Your task to perform on an android device: check google app version Image 0: 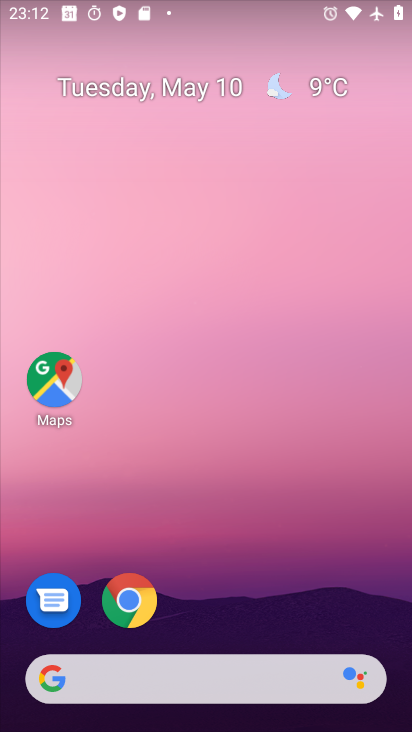
Step 0: drag from (305, 555) to (385, 125)
Your task to perform on an android device: check google app version Image 1: 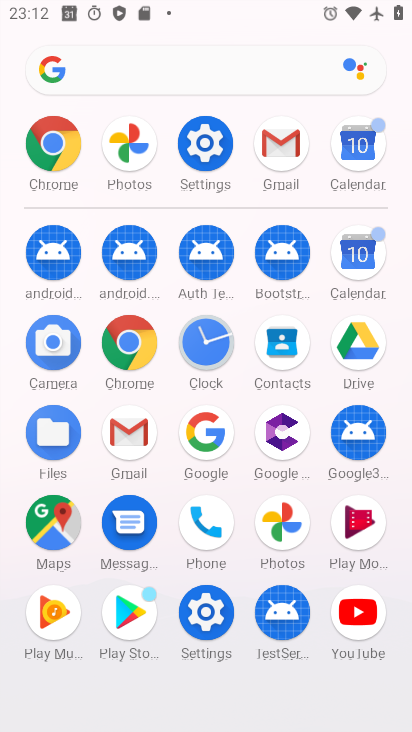
Step 1: click (213, 413)
Your task to perform on an android device: check google app version Image 2: 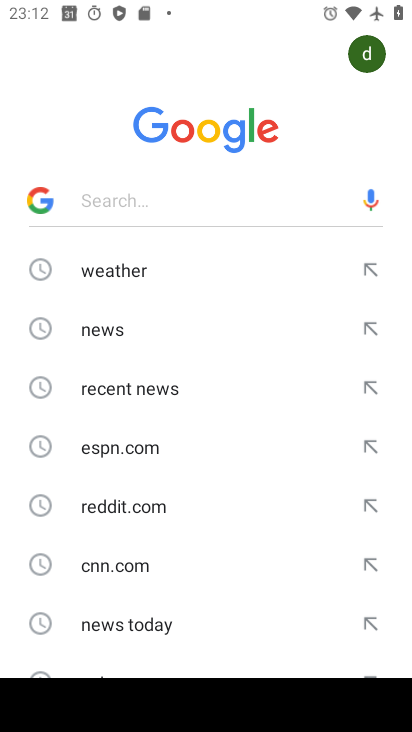
Step 2: click (375, 58)
Your task to perform on an android device: check google app version Image 3: 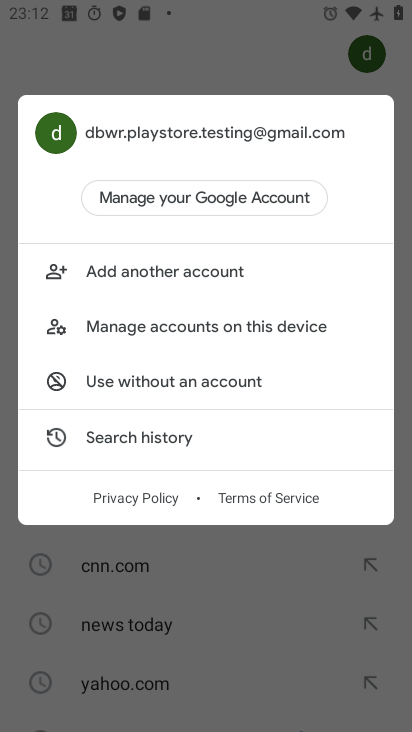
Step 3: click (375, 58)
Your task to perform on an android device: check google app version Image 4: 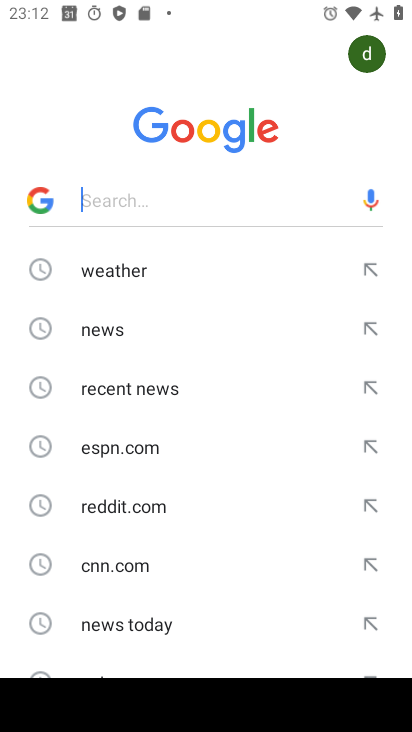
Step 4: click (386, 49)
Your task to perform on an android device: check google app version Image 5: 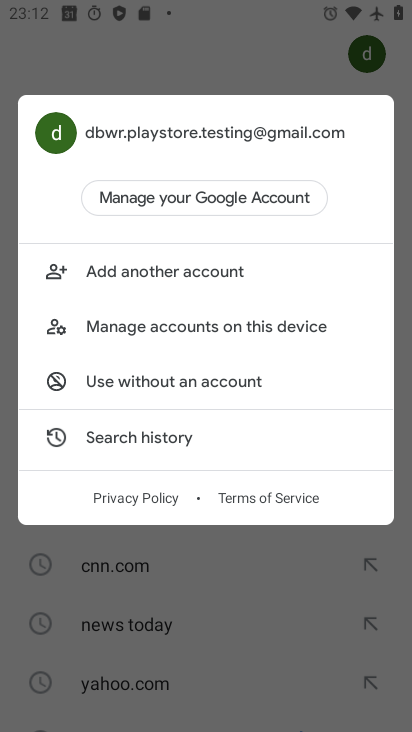
Step 5: click (377, 65)
Your task to perform on an android device: check google app version Image 6: 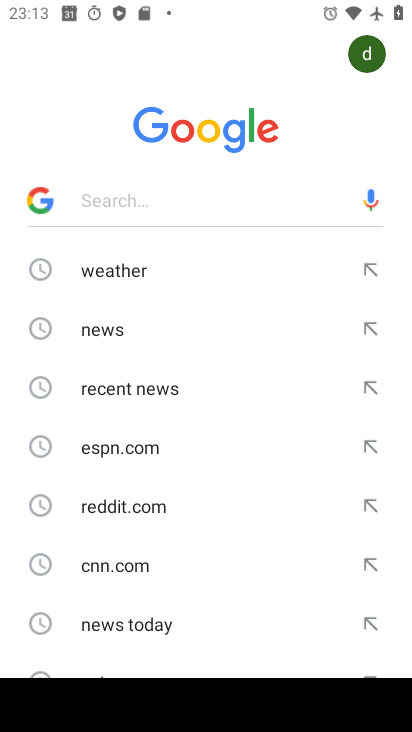
Step 6: click (361, 57)
Your task to perform on an android device: check google app version Image 7: 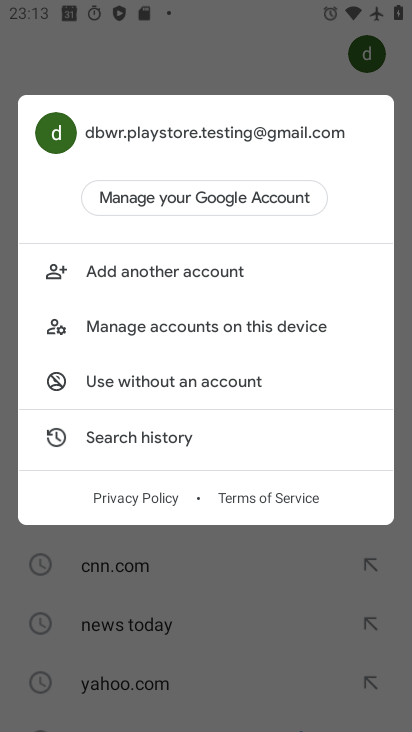
Step 7: press home button
Your task to perform on an android device: check google app version Image 8: 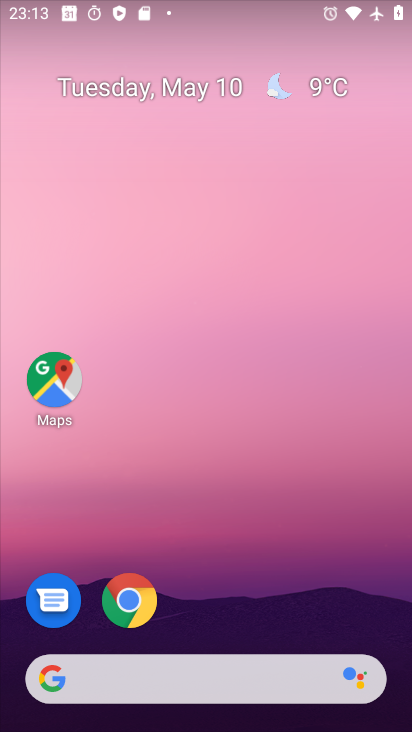
Step 8: click (134, 608)
Your task to perform on an android device: check google app version Image 9: 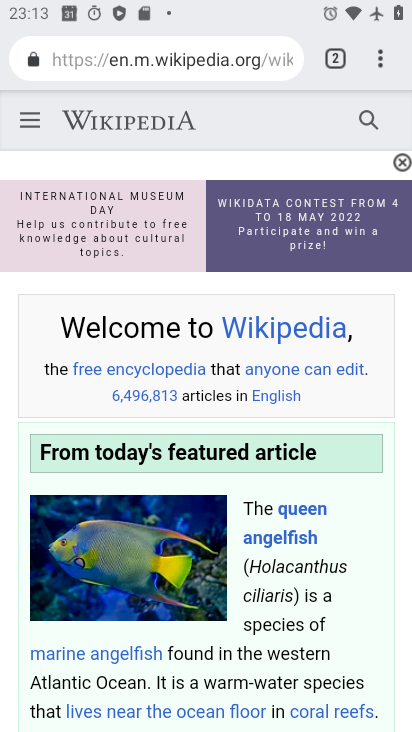
Step 9: press home button
Your task to perform on an android device: check google app version Image 10: 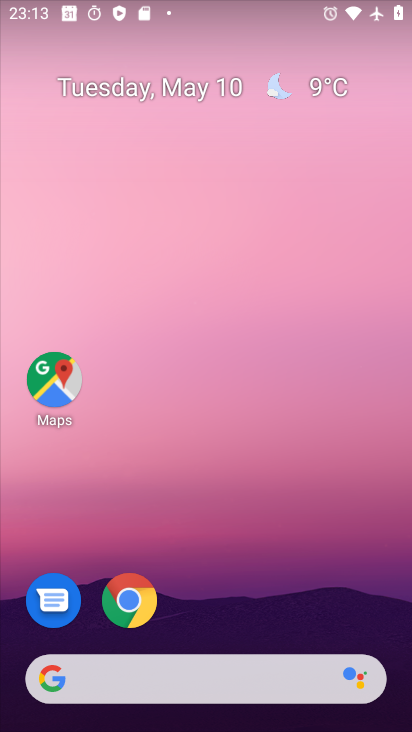
Step 10: drag from (206, 602) to (237, 138)
Your task to perform on an android device: check google app version Image 11: 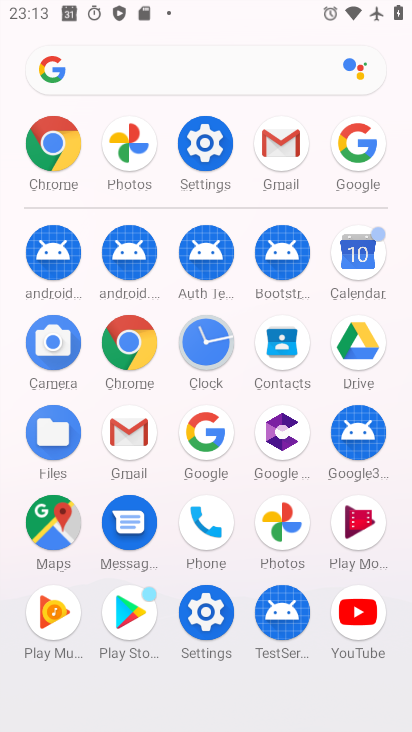
Step 11: click (373, 152)
Your task to perform on an android device: check google app version Image 12: 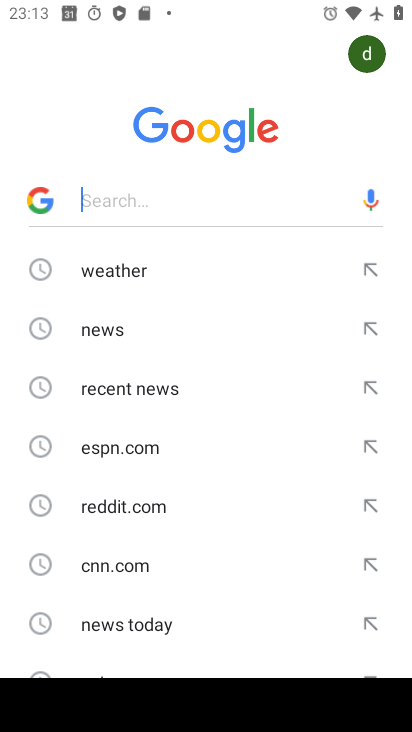
Step 12: click (34, 213)
Your task to perform on an android device: check google app version Image 13: 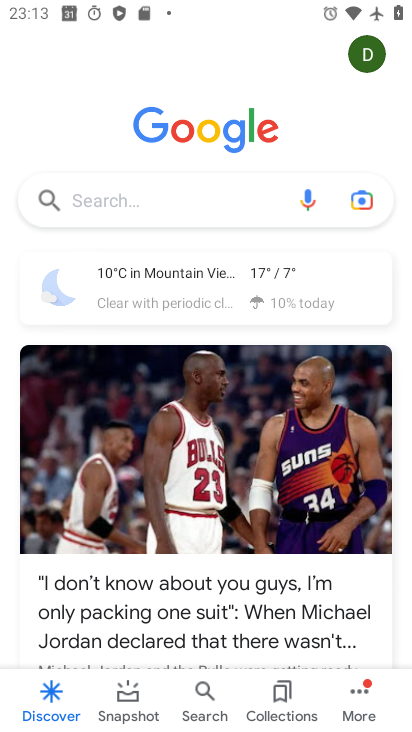
Step 13: click (366, 693)
Your task to perform on an android device: check google app version Image 14: 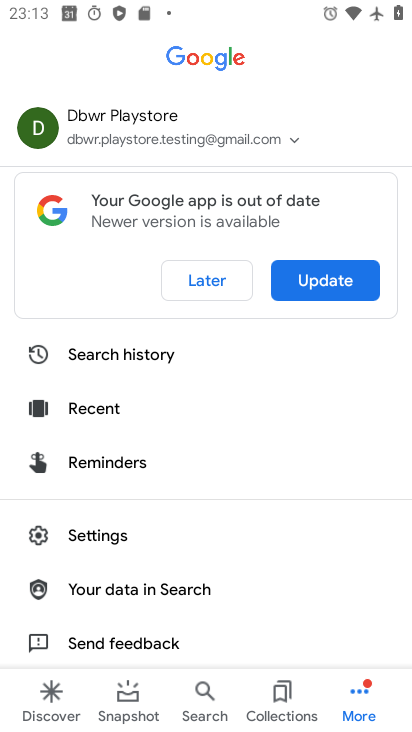
Step 14: click (70, 540)
Your task to perform on an android device: check google app version Image 15: 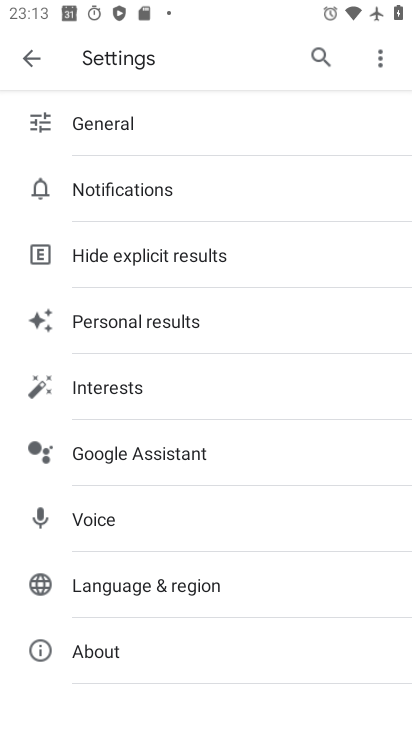
Step 15: drag from (187, 592) to (195, 259)
Your task to perform on an android device: check google app version Image 16: 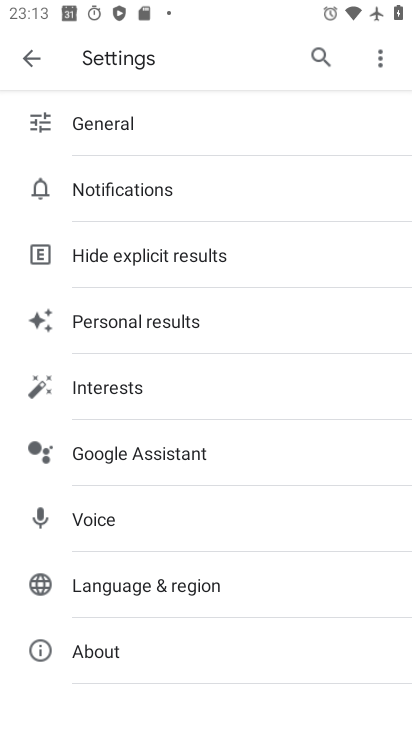
Step 16: click (127, 650)
Your task to perform on an android device: check google app version Image 17: 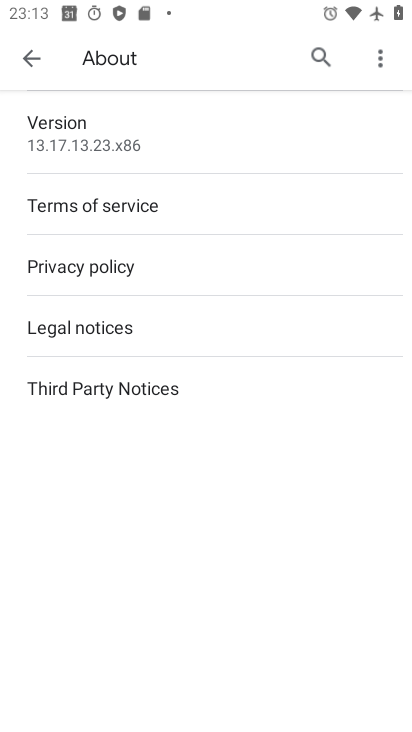
Step 17: click (81, 122)
Your task to perform on an android device: check google app version Image 18: 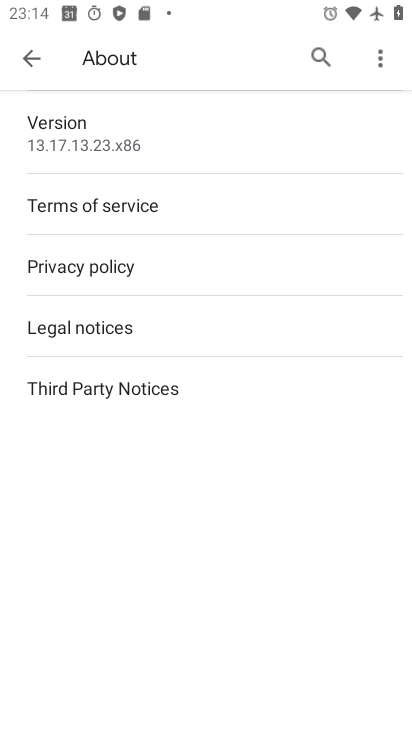
Step 18: click (71, 118)
Your task to perform on an android device: check google app version Image 19: 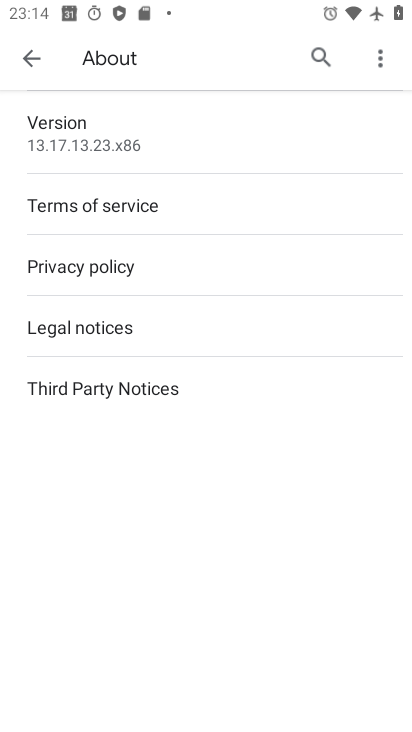
Step 19: task complete